Your task to perform on an android device: Search for a new foundation on Sephora Image 0: 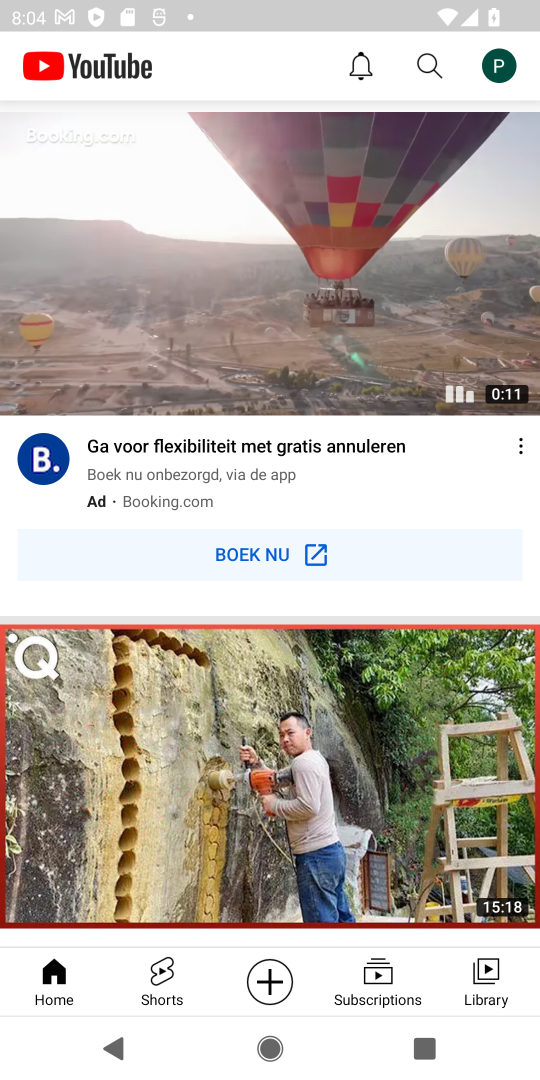
Step 0: press home button
Your task to perform on an android device: Search for a new foundation on Sephora Image 1: 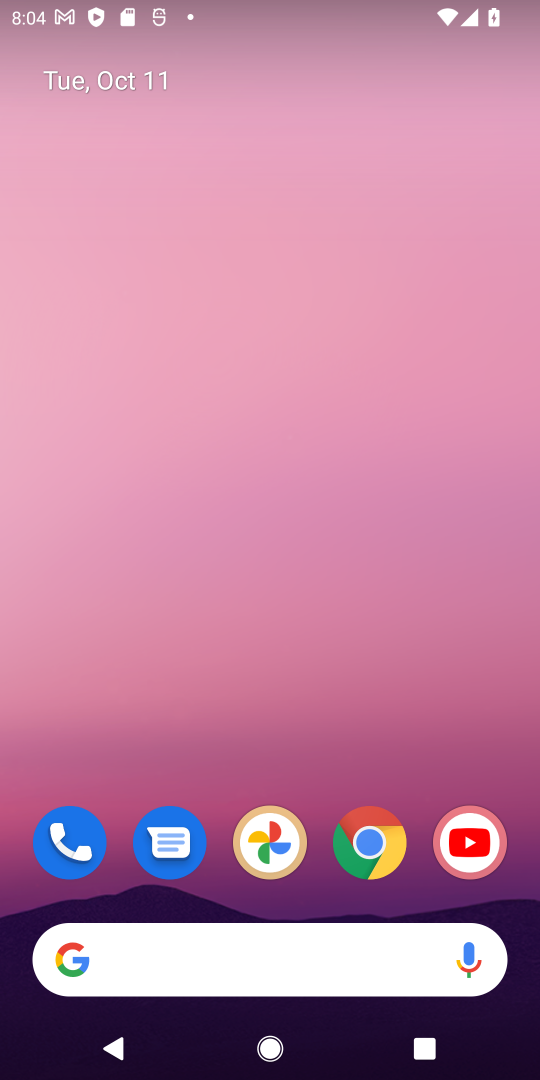
Step 1: click (375, 829)
Your task to perform on an android device: Search for a new foundation on Sephora Image 2: 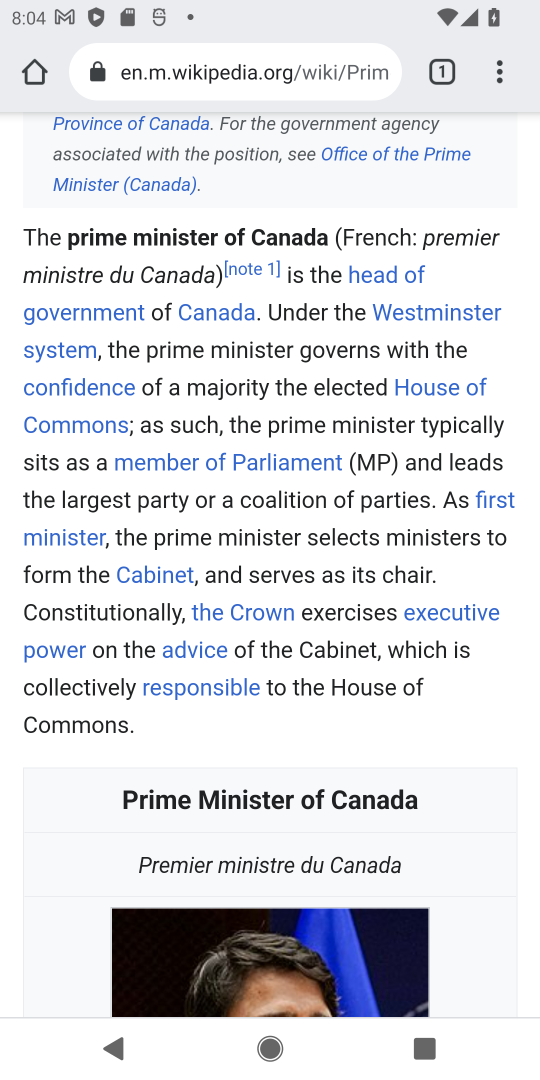
Step 2: click (296, 76)
Your task to perform on an android device: Search for a new foundation on Sephora Image 3: 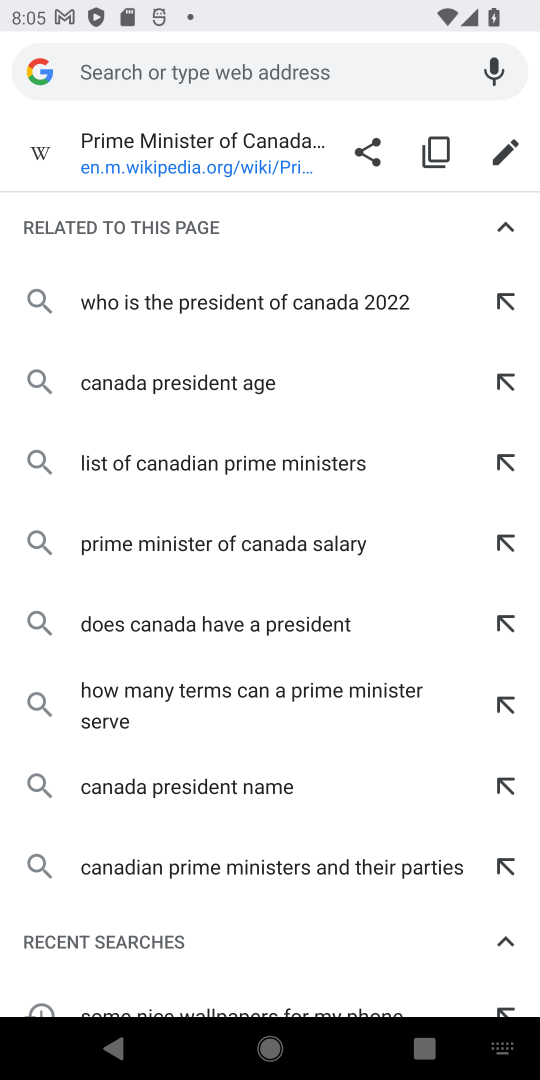
Step 3: type "new foundation on sephora"
Your task to perform on an android device: Search for a new foundation on Sephora Image 4: 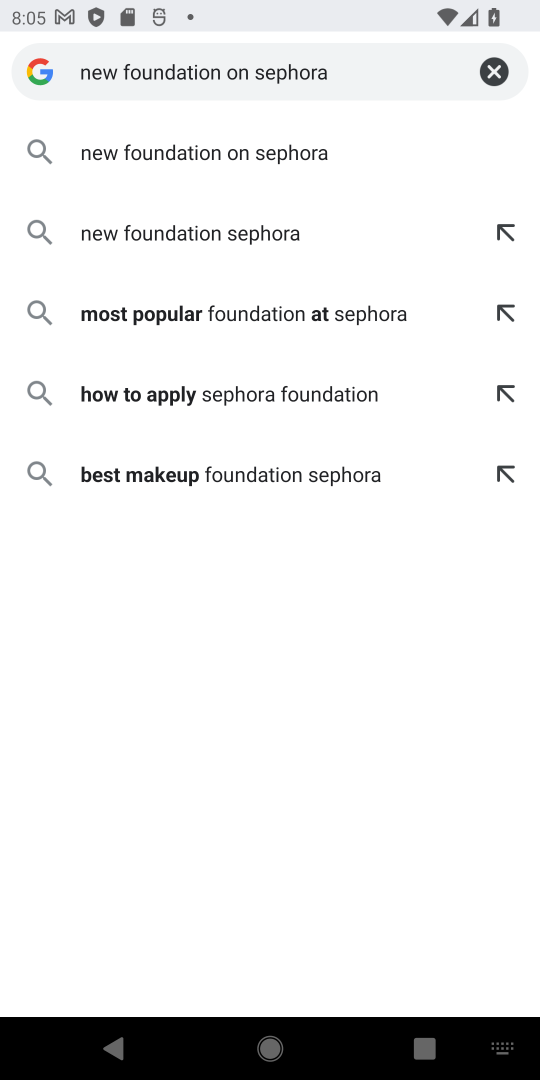
Step 4: click (168, 148)
Your task to perform on an android device: Search for a new foundation on Sephora Image 5: 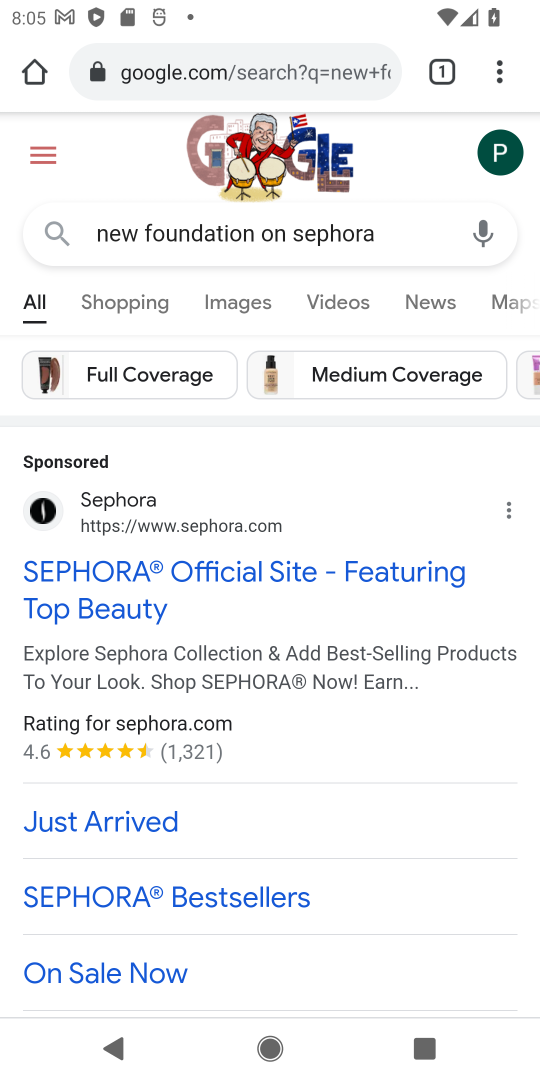
Step 5: click (87, 567)
Your task to perform on an android device: Search for a new foundation on Sephora Image 6: 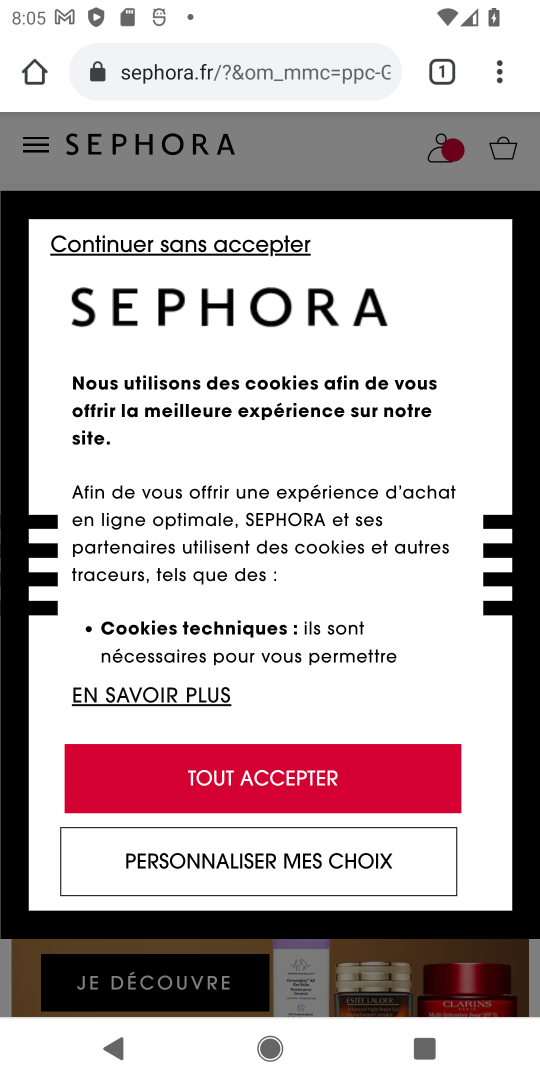
Step 6: click (316, 778)
Your task to perform on an android device: Search for a new foundation on Sephora Image 7: 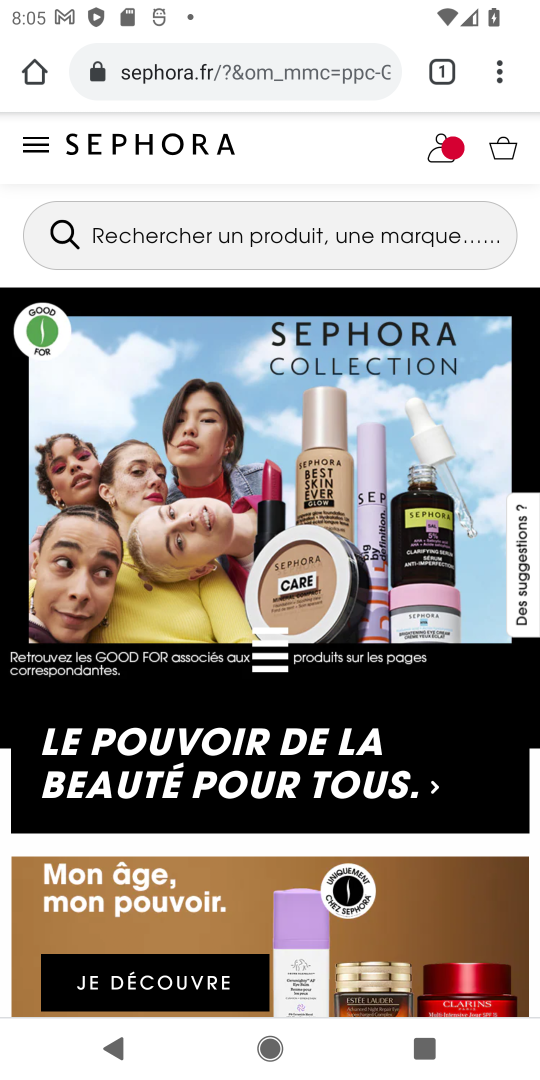
Step 7: click (156, 228)
Your task to perform on an android device: Search for a new foundation on Sephora Image 8: 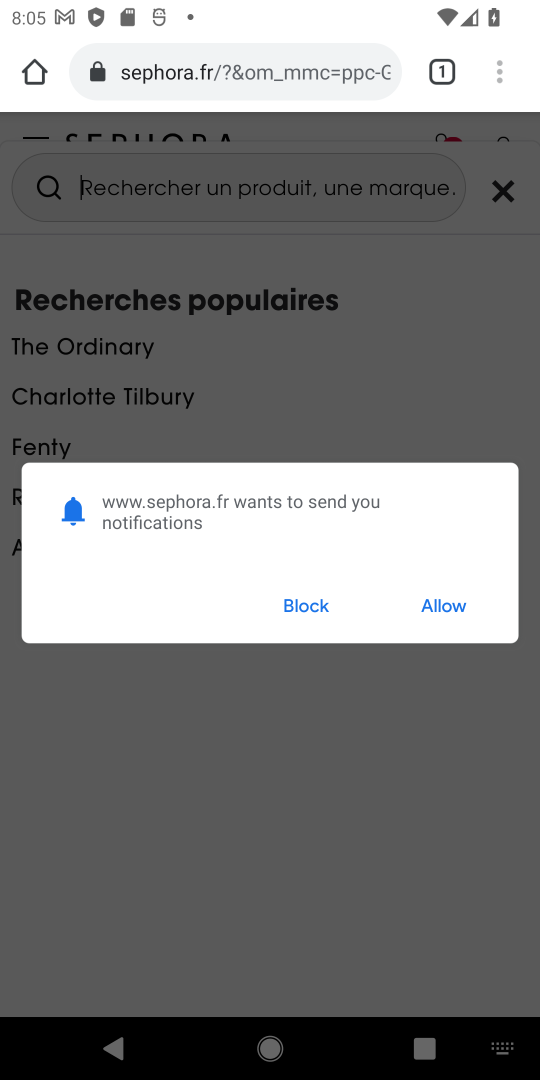
Step 8: click (433, 608)
Your task to perform on an android device: Search for a new foundation on Sephora Image 9: 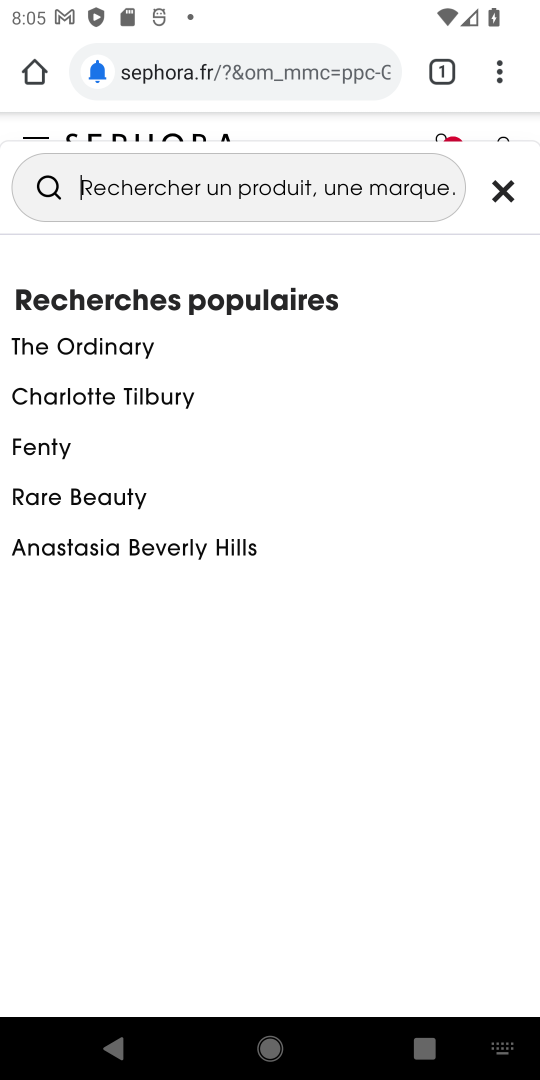
Step 9: type "foundation"
Your task to perform on an android device: Search for a new foundation on Sephora Image 10: 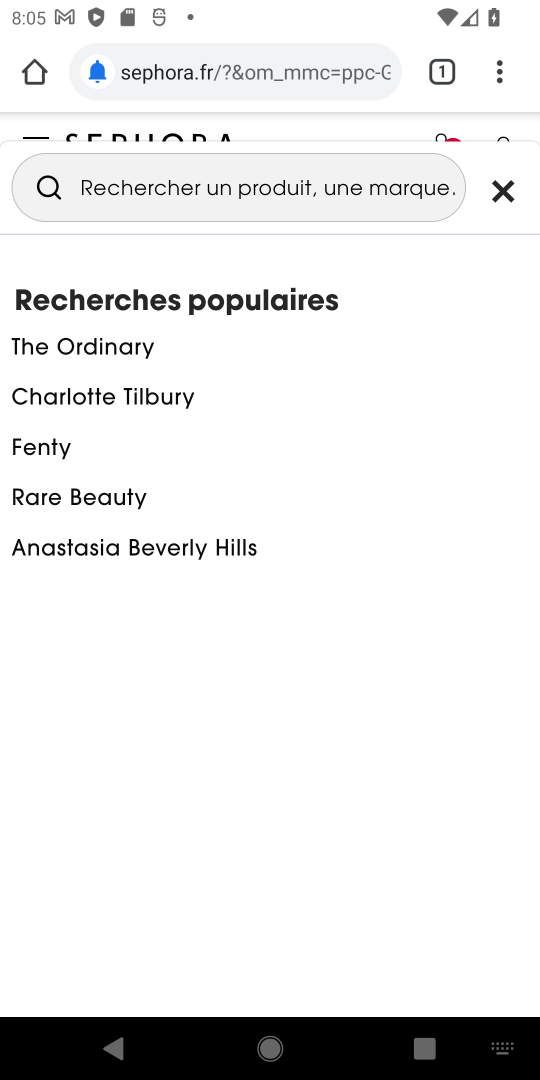
Step 10: type ""
Your task to perform on an android device: Search for a new foundation on Sephora Image 11: 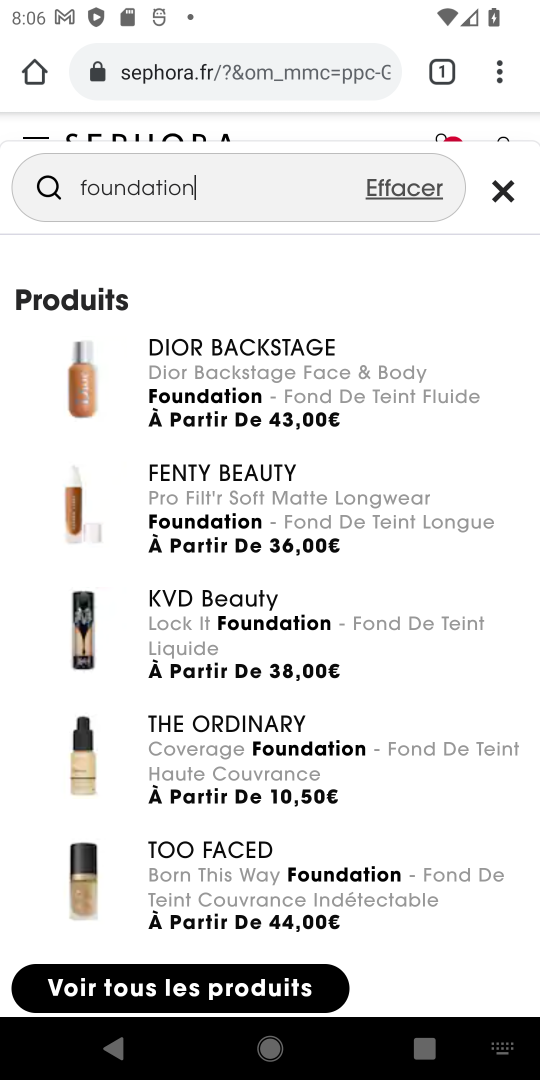
Step 11: task complete